Your task to perform on an android device: turn on translation in the chrome app Image 0: 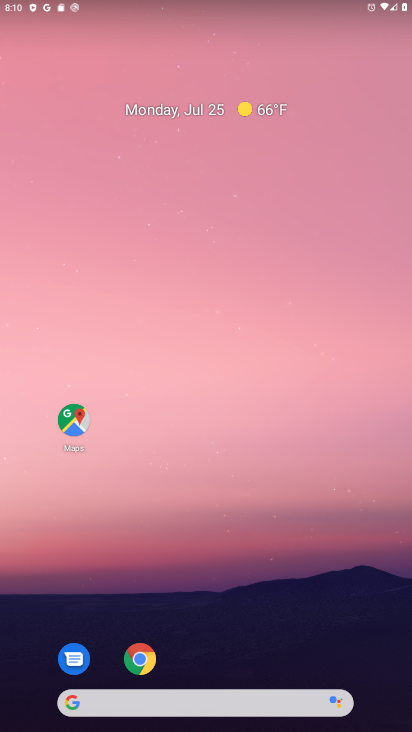
Step 0: click (151, 673)
Your task to perform on an android device: turn on translation in the chrome app Image 1: 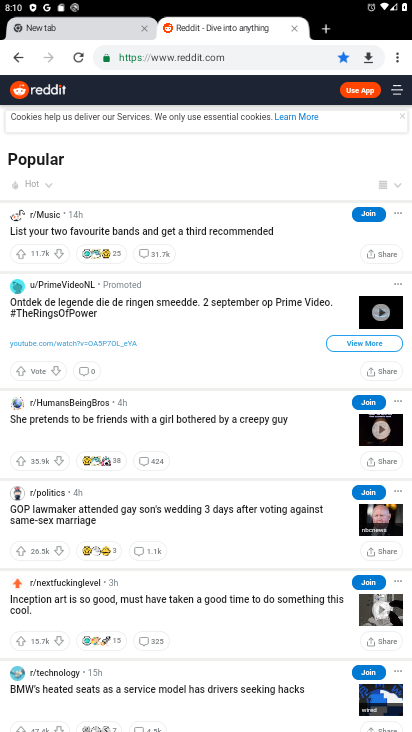
Step 1: click (402, 56)
Your task to perform on an android device: turn on translation in the chrome app Image 2: 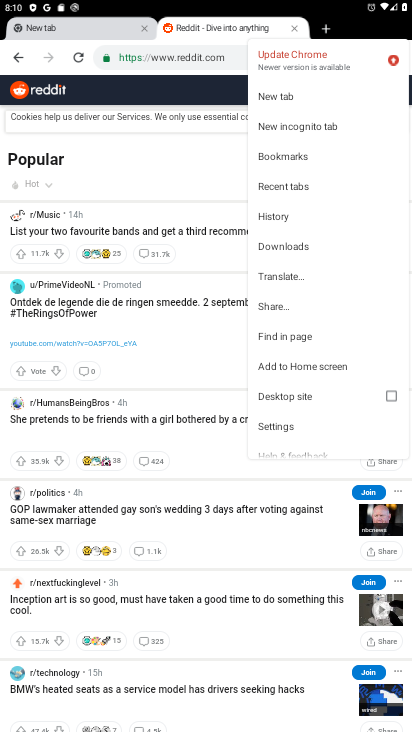
Step 2: click (270, 429)
Your task to perform on an android device: turn on translation in the chrome app Image 3: 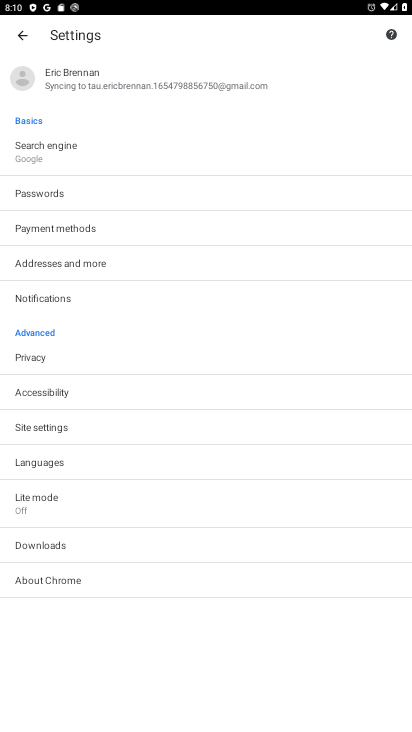
Step 3: click (32, 468)
Your task to perform on an android device: turn on translation in the chrome app Image 4: 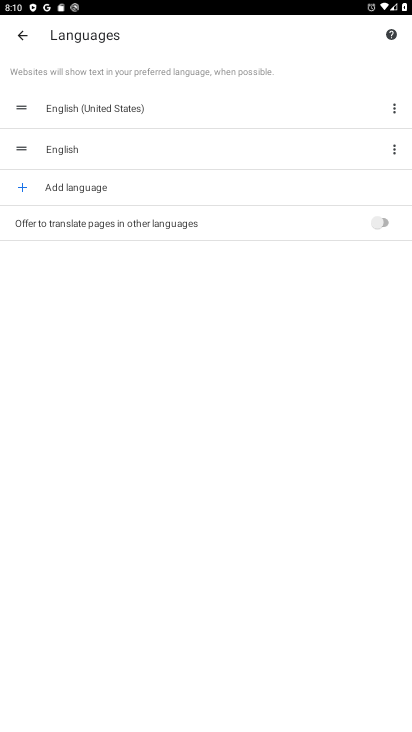
Step 4: click (375, 214)
Your task to perform on an android device: turn on translation in the chrome app Image 5: 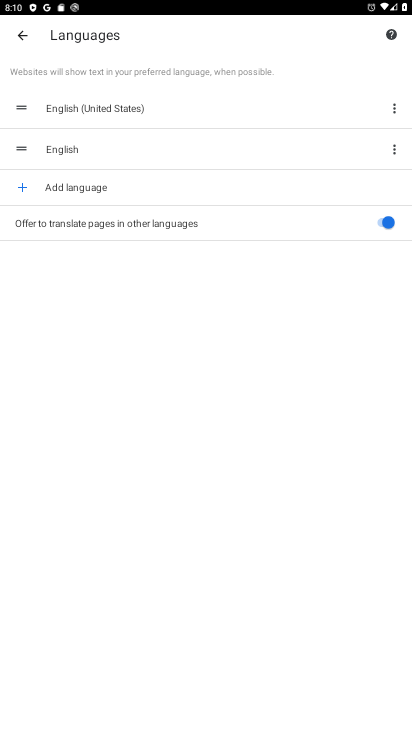
Step 5: task complete